Your task to perform on an android device: What is the news today? Image 0: 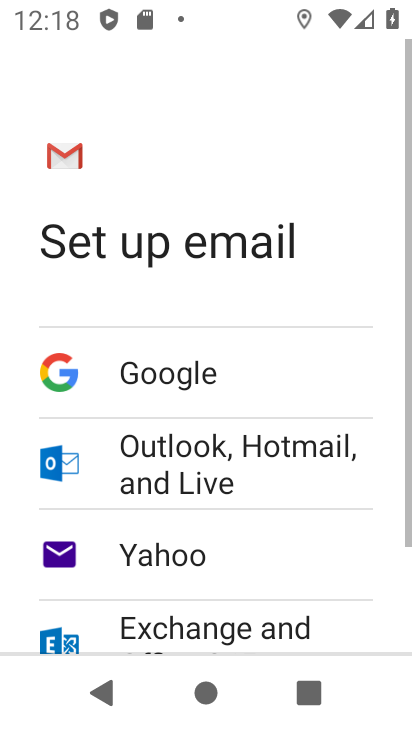
Step 0: press home button
Your task to perform on an android device: What is the news today? Image 1: 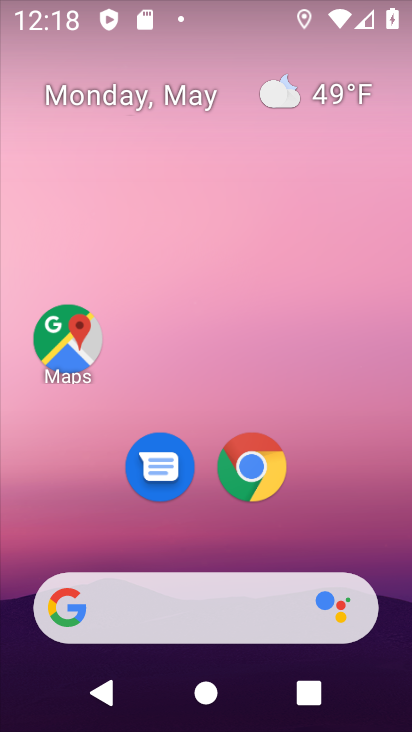
Step 1: drag from (298, 556) to (345, 198)
Your task to perform on an android device: What is the news today? Image 2: 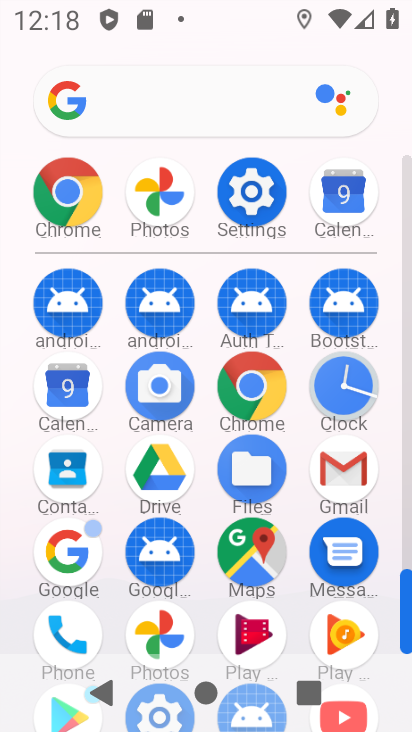
Step 2: click (245, 399)
Your task to perform on an android device: What is the news today? Image 3: 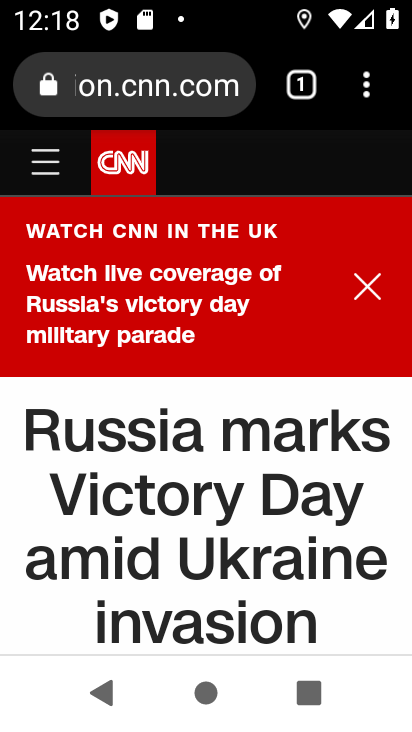
Step 3: click (205, 70)
Your task to perform on an android device: What is the news today? Image 4: 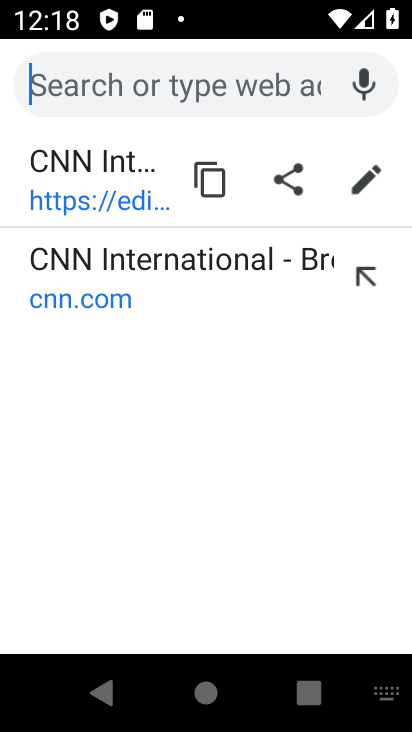
Step 4: type "what's the news today"
Your task to perform on an android device: What is the news today? Image 5: 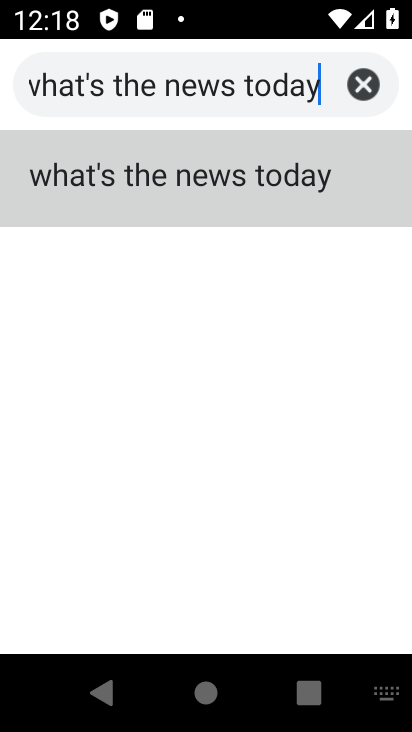
Step 5: click (39, 184)
Your task to perform on an android device: What is the news today? Image 6: 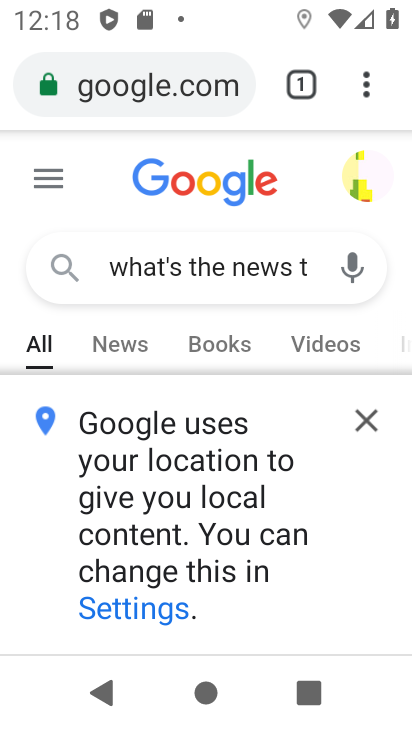
Step 6: click (375, 421)
Your task to perform on an android device: What is the news today? Image 7: 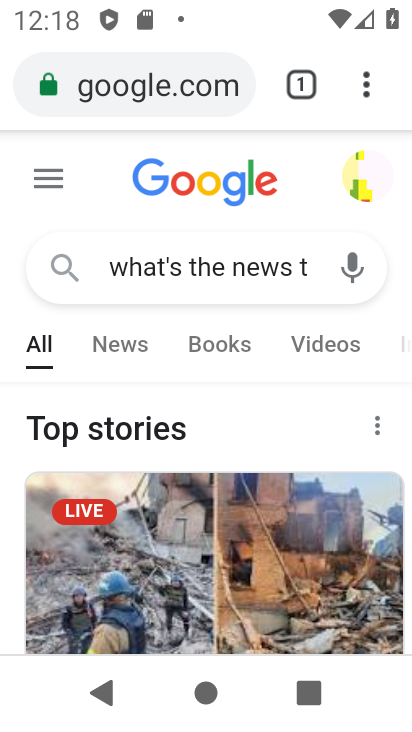
Step 7: task complete